Your task to perform on an android device: Show the shopping cart on bestbuy. Image 0: 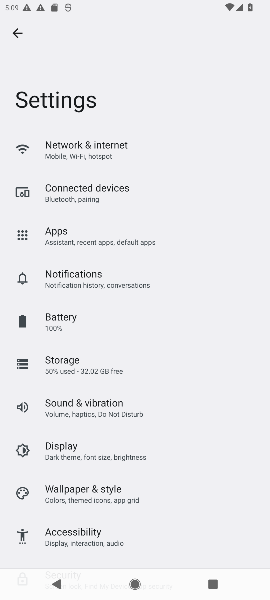
Step 0: press home button
Your task to perform on an android device: Show the shopping cart on bestbuy. Image 1: 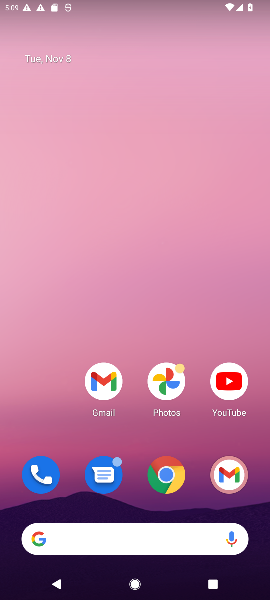
Step 1: drag from (136, 496) to (136, 103)
Your task to perform on an android device: Show the shopping cart on bestbuy. Image 2: 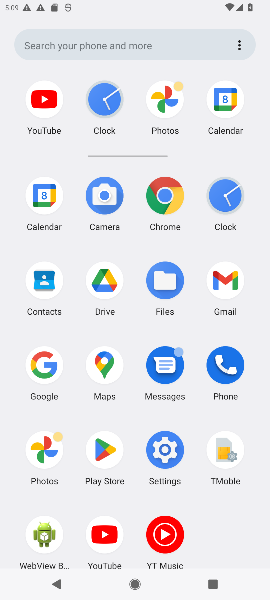
Step 2: click (41, 363)
Your task to perform on an android device: Show the shopping cart on bestbuy. Image 3: 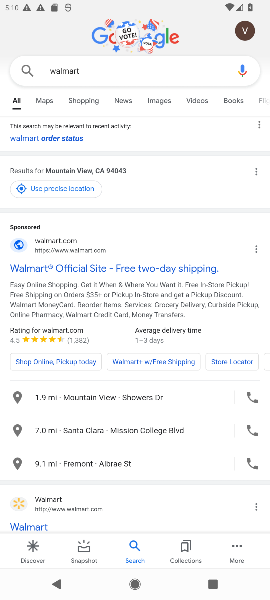
Step 3: click (114, 69)
Your task to perform on an android device: Show the shopping cart on bestbuy. Image 4: 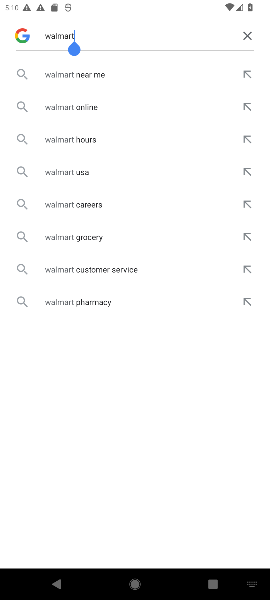
Step 4: click (246, 34)
Your task to perform on an android device: Show the shopping cart on bestbuy. Image 5: 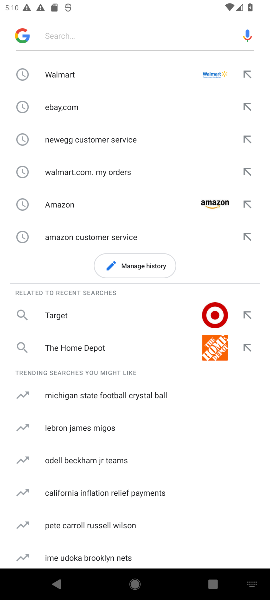
Step 5: click (94, 27)
Your task to perform on an android device: Show the shopping cart on bestbuy. Image 6: 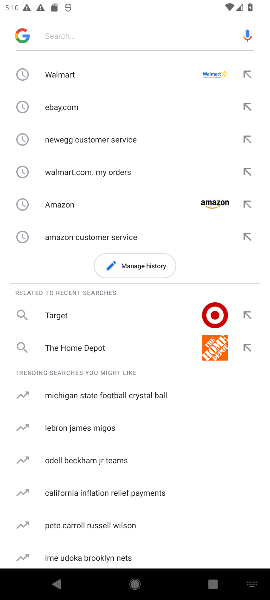
Step 6: type "bestbuy "
Your task to perform on an android device: Show the shopping cart on bestbuy. Image 7: 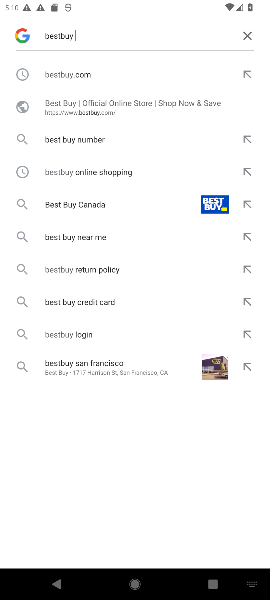
Step 7: click (76, 75)
Your task to perform on an android device: Show the shopping cart on bestbuy. Image 8: 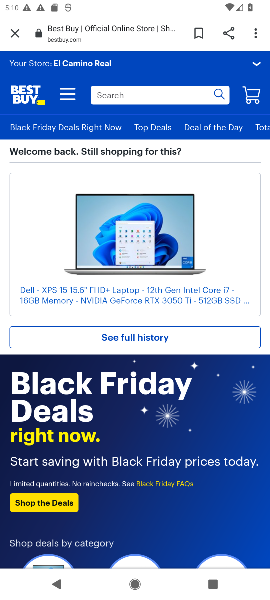
Step 8: click (251, 95)
Your task to perform on an android device: Show the shopping cart on bestbuy. Image 9: 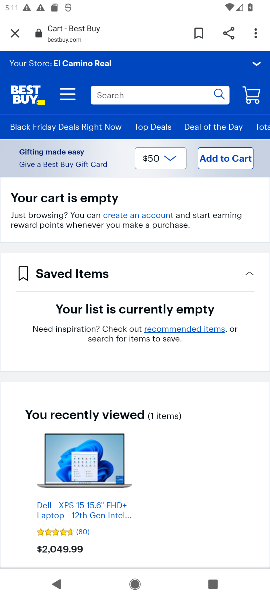
Step 9: task complete